Your task to perform on an android device: clear all cookies in the chrome app Image 0: 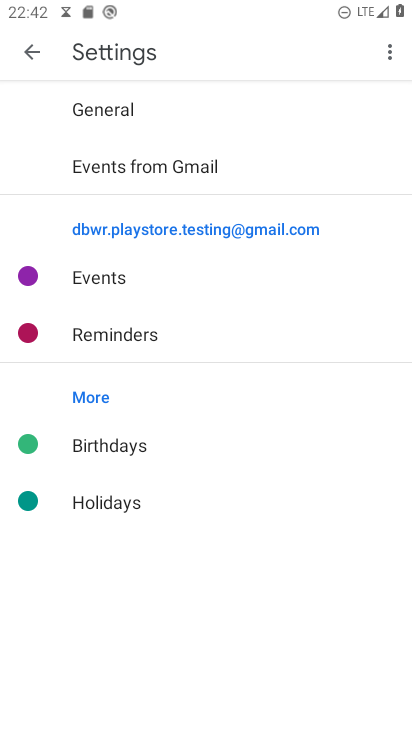
Step 0: press home button
Your task to perform on an android device: clear all cookies in the chrome app Image 1: 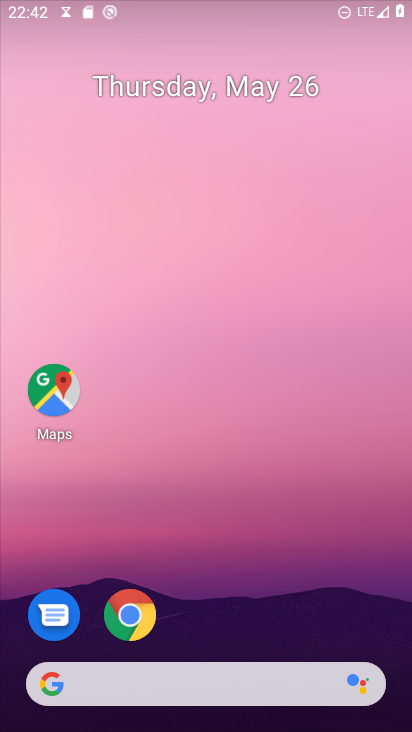
Step 1: drag from (239, 600) to (241, 182)
Your task to perform on an android device: clear all cookies in the chrome app Image 2: 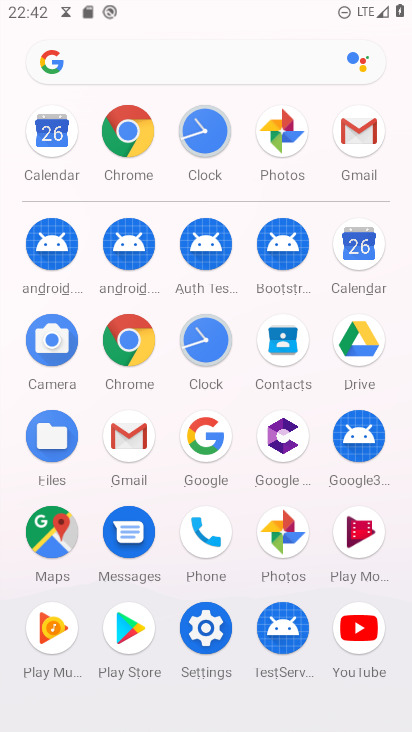
Step 2: click (137, 333)
Your task to perform on an android device: clear all cookies in the chrome app Image 3: 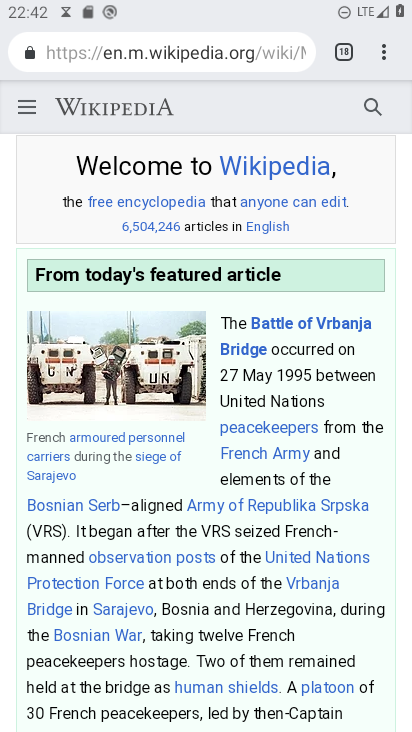
Step 3: click (385, 58)
Your task to perform on an android device: clear all cookies in the chrome app Image 4: 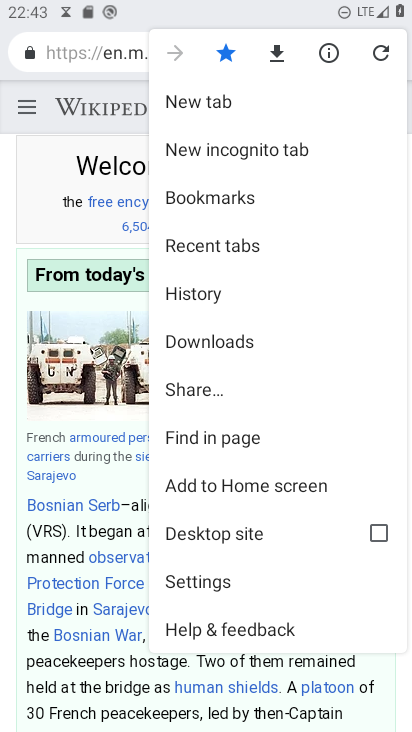
Step 4: click (224, 576)
Your task to perform on an android device: clear all cookies in the chrome app Image 5: 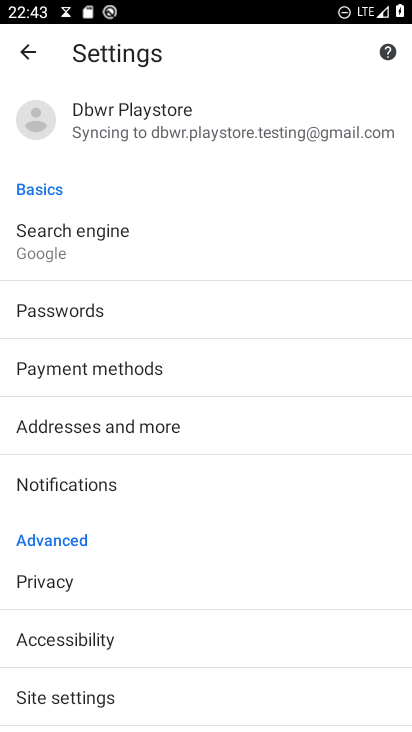
Step 5: drag from (218, 627) to (255, 243)
Your task to perform on an android device: clear all cookies in the chrome app Image 6: 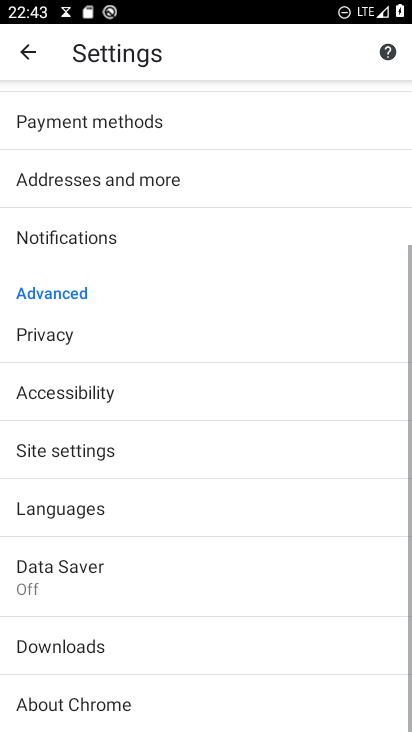
Step 6: click (95, 334)
Your task to perform on an android device: clear all cookies in the chrome app Image 7: 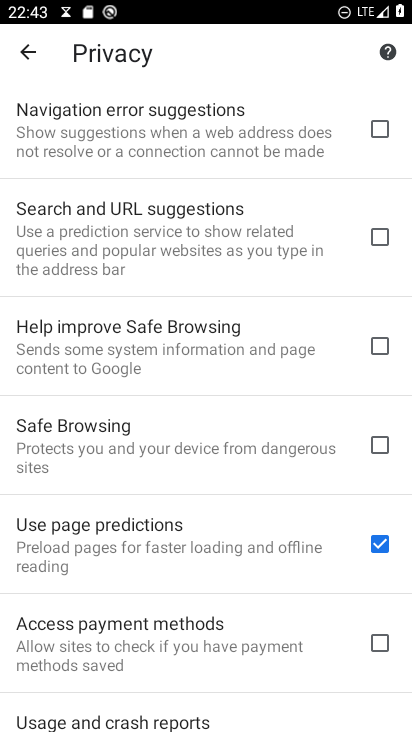
Step 7: drag from (179, 629) to (188, 251)
Your task to perform on an android device: clear all cookies in the chrome app Image 8: 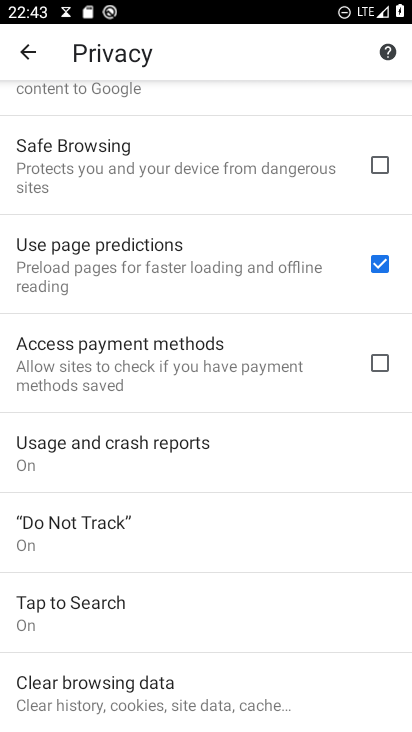
Step 8: drag from (164, 534) to (197, 216)
Your task to perform on an android device: clear all cookies in the chrome app Image 9: 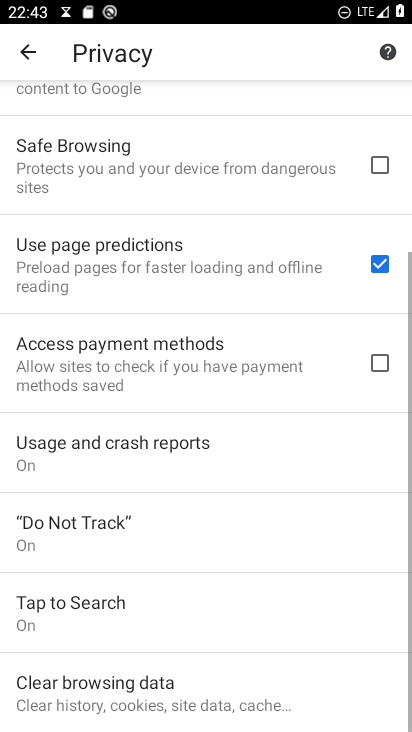
Step 9: click (165, 704)
Your task to perform on an android device: clear all cookies in the chrome app Image 10: 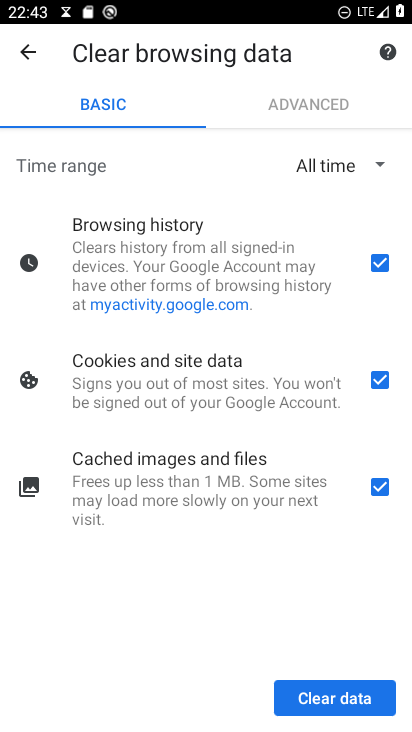
Step 10: click (333, 694)
Your task to perform on an android device: clear all cookies in the chrome app Image 11: 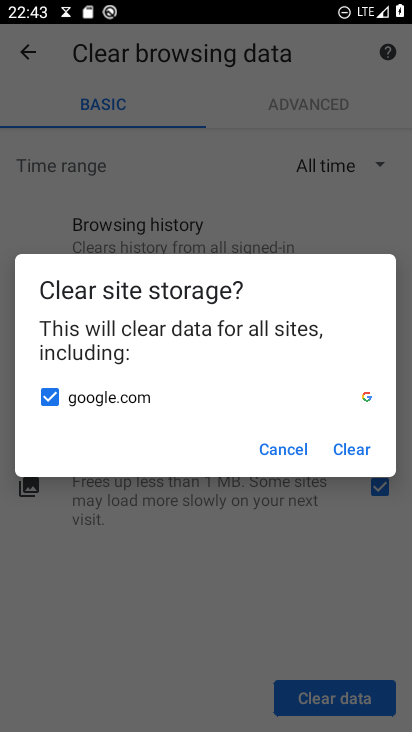
Step 11: click (352, 452)
Your task to perform on an android device: clear all cookies in the chrome app Image 12: 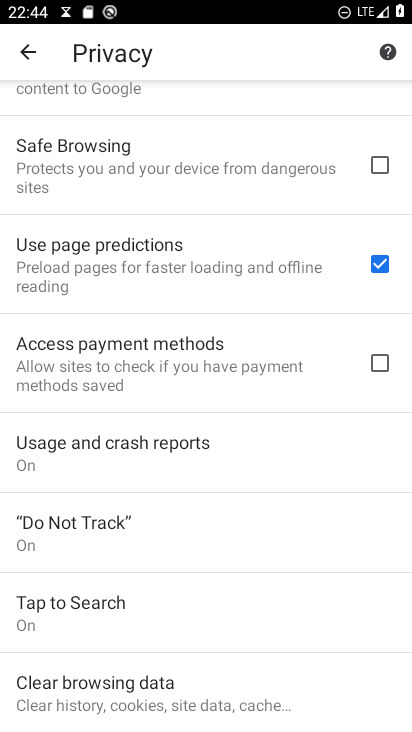
Step 12: task complete